Your task to perform on an android device: change your default location settings in chrome Image 0: 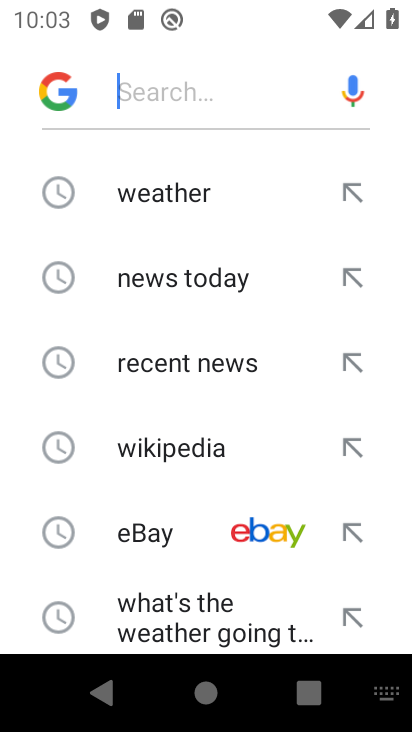
Step 0: press home button
Your task to perform on an android device: change your default location settings in chrome Image 1: 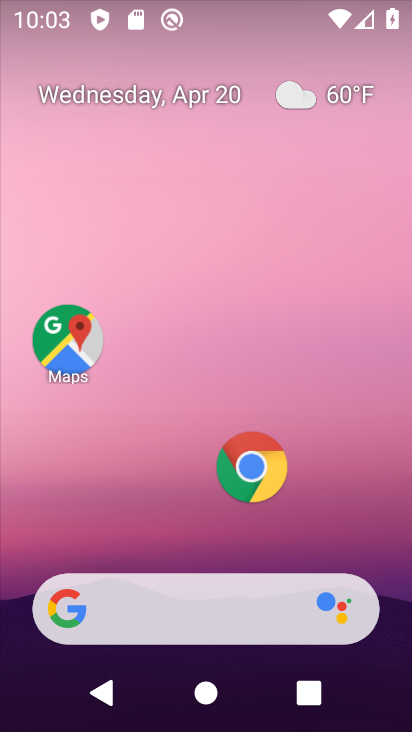
Step 1: click (254, 467)
Your task to perform on an android device: change your default location settings in chrome Image 2: 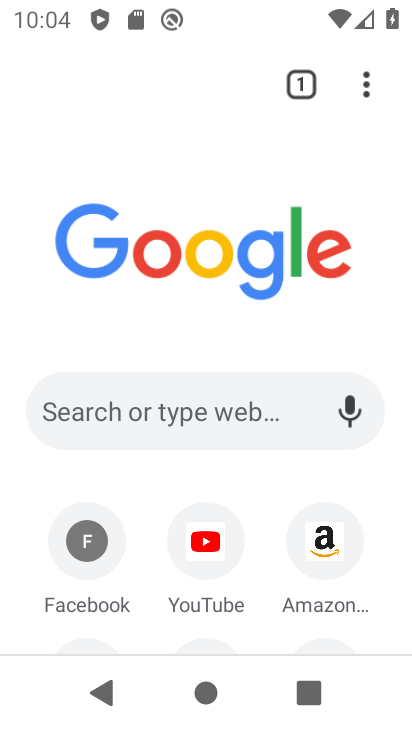
Step 2: click (367, 85)
Your task to perform on an android device: change your default location settings in chrome Image 3: 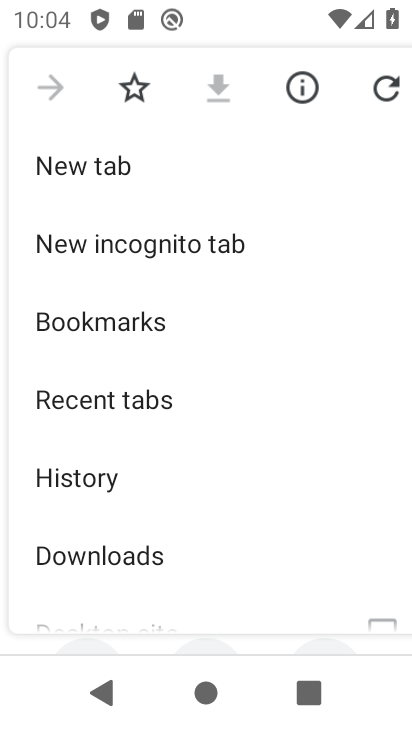
Step 3: drag from (187, 464) to (183, 320)
Your task to perform on an android device: change your default location settings in chrome Image 4: 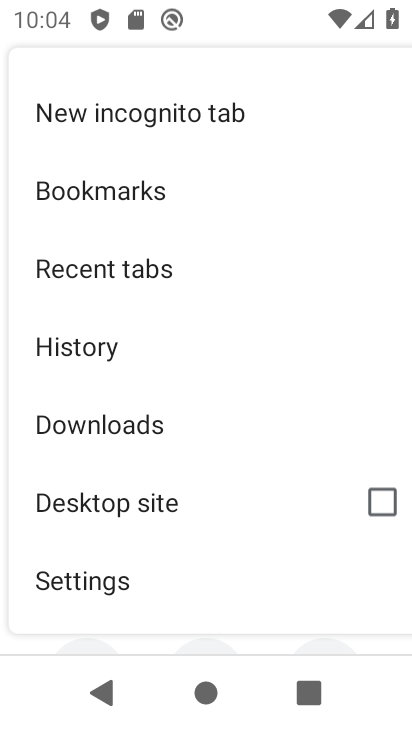
Step 4: drag from (153, 408) to (179, 269)
Your task to perform on an android device: change your default location settings in chrome Image 5: 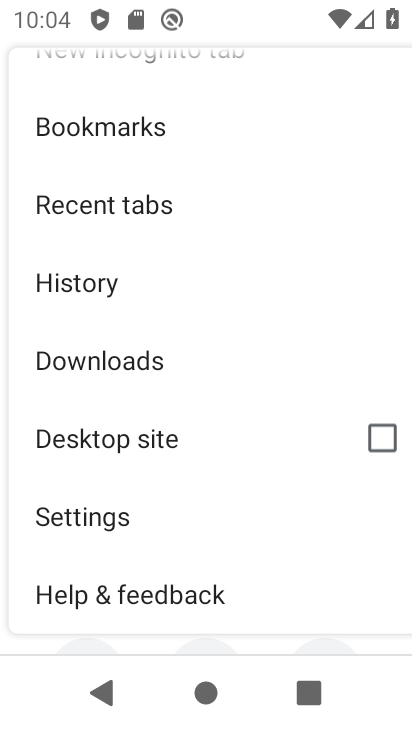
Step 5: click (95, 499)
Your task to perform on an android device: change your default location settings in chrome Image 6: 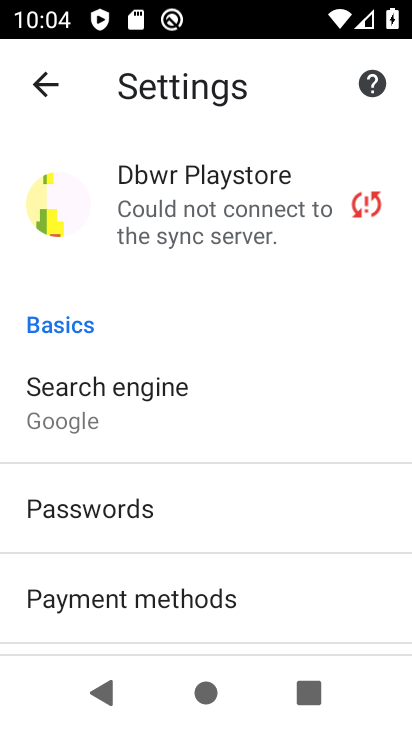
Step 6: drag from (191, 495) to (203, 369)
Your task to perform on an android device: change your default location settings in chrome Image 7: 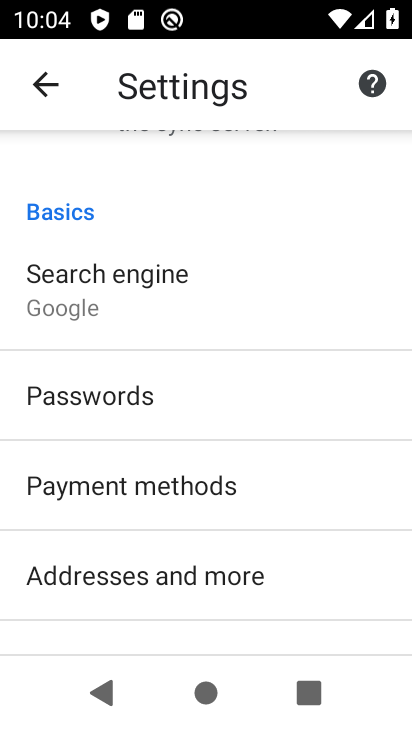
Step 7: drag from (231, 441) to (235, 336)
Your task to perform on an android device: change your default location settings in chrome Image 8: 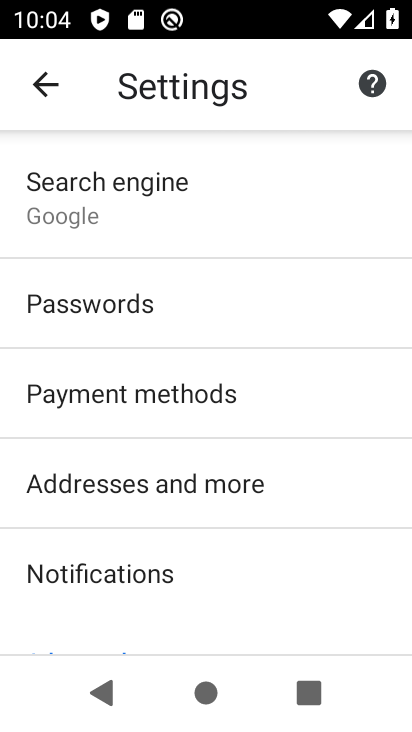
Step 8: drag from (230, 370) to (253, 335)
Your task to perform on an android device: change your default location settings in chrome Image 9: 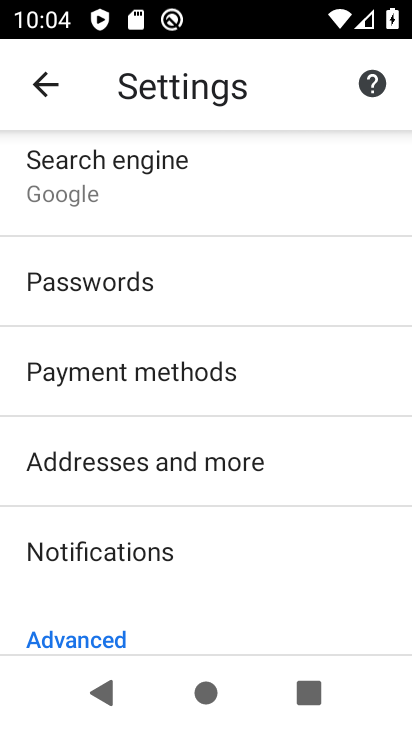
Step 9: drag from (239, 395) to (263, 300)
Your task to perform on an android device: change your default location settings in chrome Image 10: 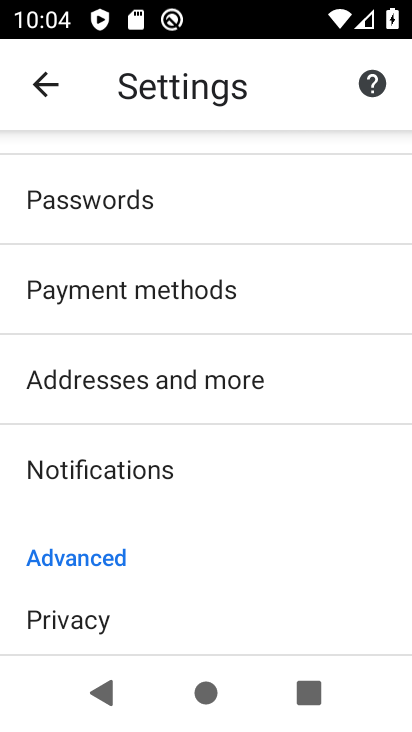
Step 10: drag from (231, 388) to (232, 328)
Your task to perform on an android device: change your default location settings in chrome Image 11: 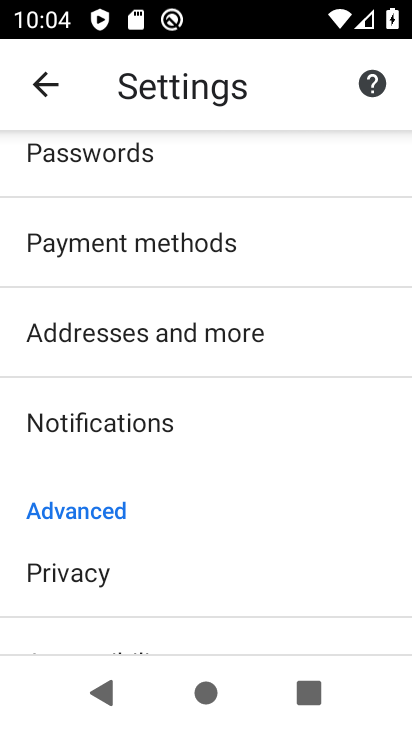
Step 11: drag from (228, 359) to (223, 287)
Your task to perform on an android device: change your default location settings in chrome Image 12: 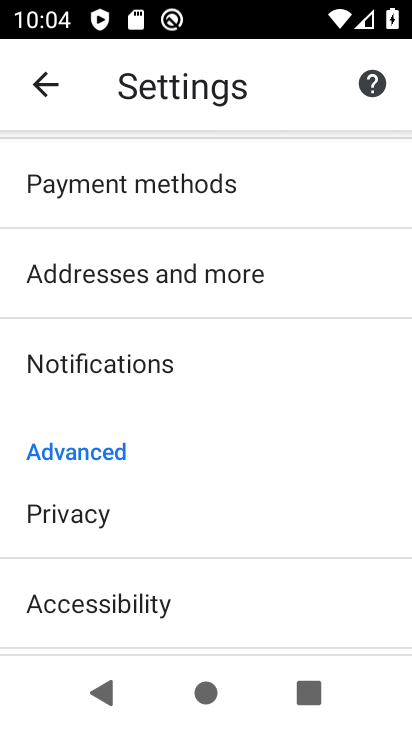
Step 12: drag from (215, 360) to (209, 279)
Your task to perform on an android device: change your default location settings in chrome Image 13: 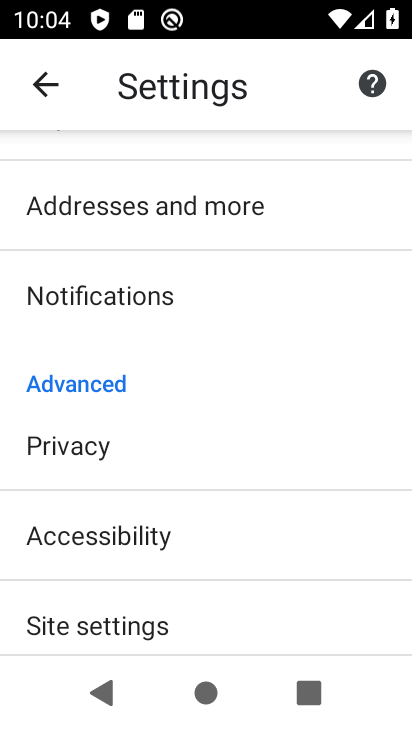
Step 13: drag from (215, 382) to (200, 283)
Your task to perform on an android device: change your default location settings in chrome Image 14: 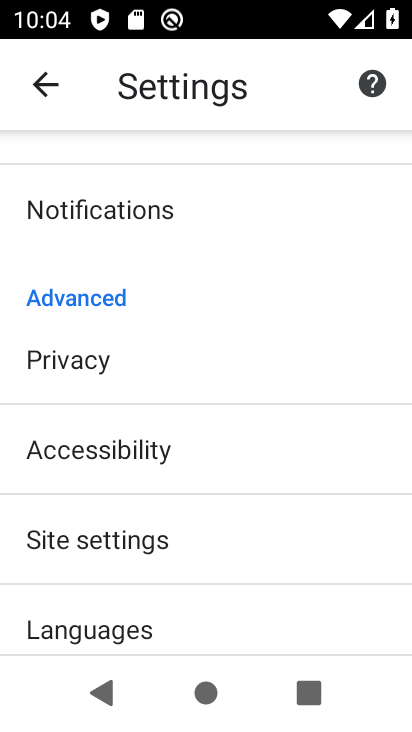
Step 14: click (138, 510)
Your task to perform on an android device: change your default location settings in chrome Image 15: 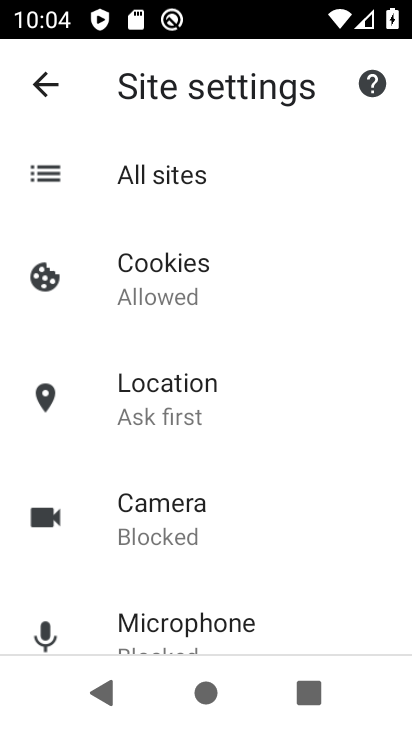
Step 15: click (185, 383)
Your task to perform on an android device: change your default location settings in chrome Image 16: 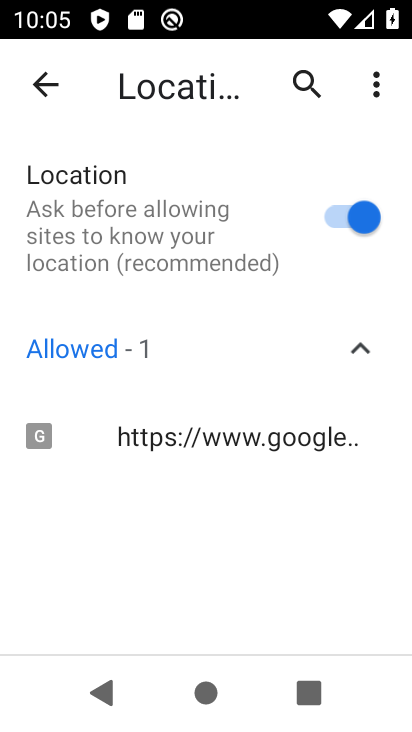
Step 16: click (330, 225)
Your task to perform on an android device: change your default location settings in chrome Image 17: 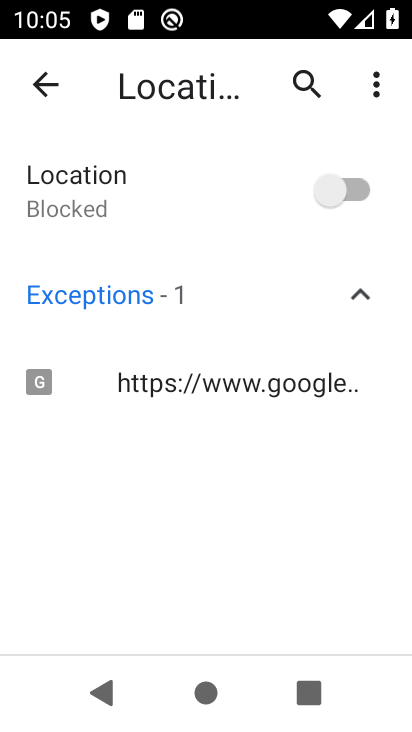
Step 17: task complete